Your task to perform on an android device: Go to network settings Image 0: 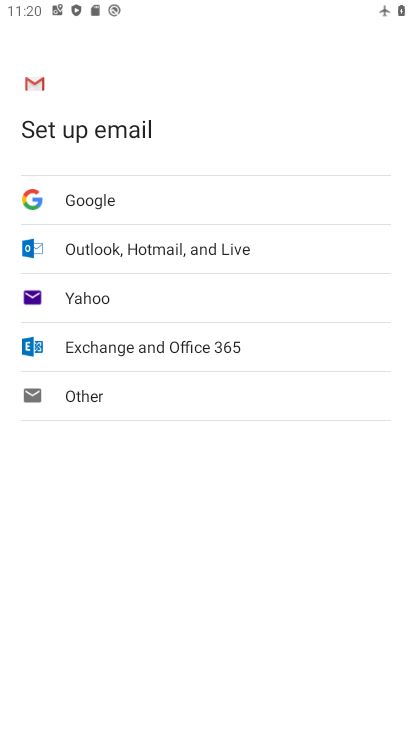
Step 0: press home button
Your task to perform on an android device: Go to network settings Image 1: 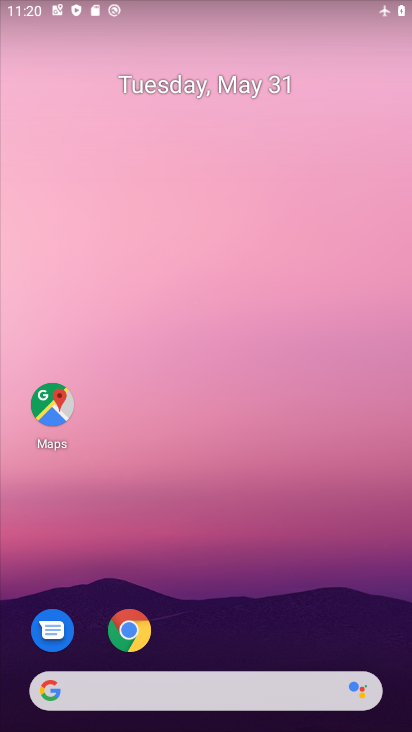
Step 1: drag from (259, 685) to (316, 161)
Your task to perform on an android device: Go to network settings Image 2: 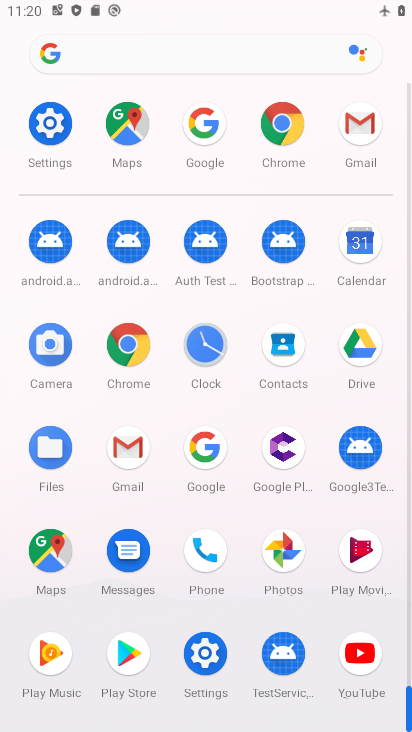
Step 2: click (52, 150)
Your task to perform on an android device: Go to network settings Image 3: 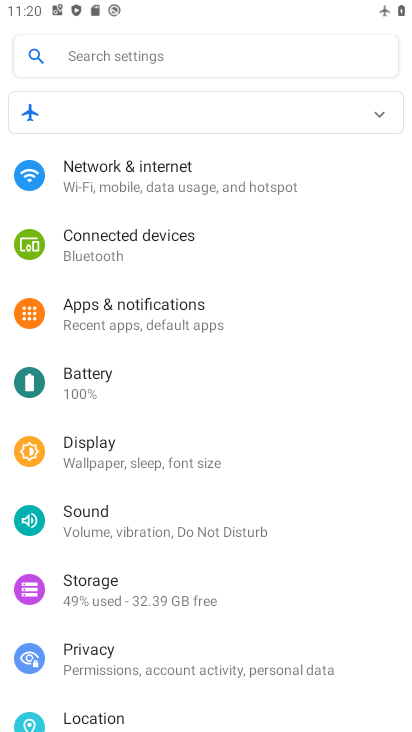
Step 3: click (220, 183)
Your task to perform on an android device: Go to network settings Image 4: 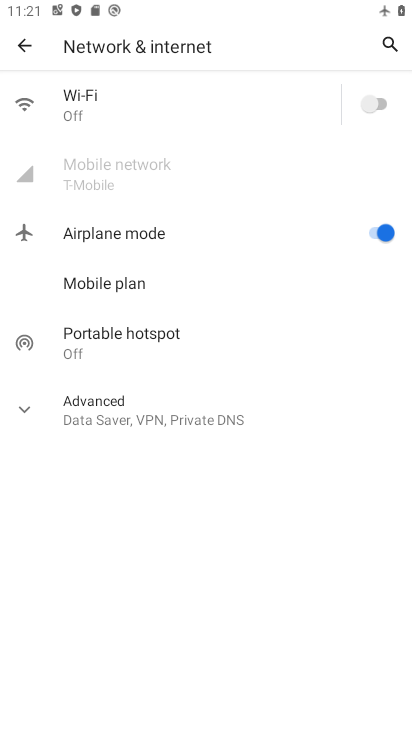
Step 4: task complete